Your task to perform on an android device: turn on sleep mode Image 0: 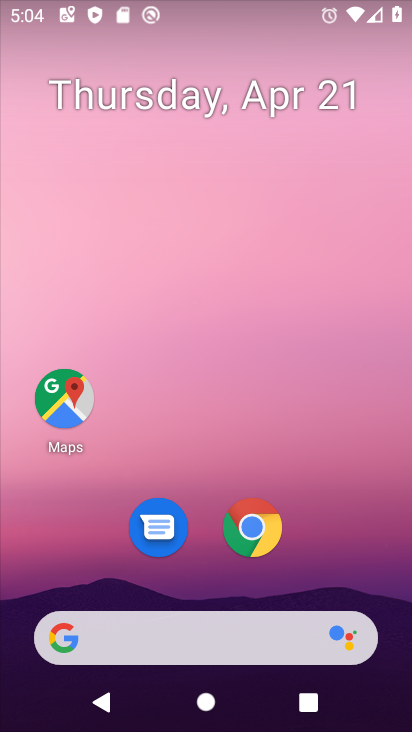
Step 0: click (340, 173)
Your task to perform on an android device: turn on sleep mode Image 1: 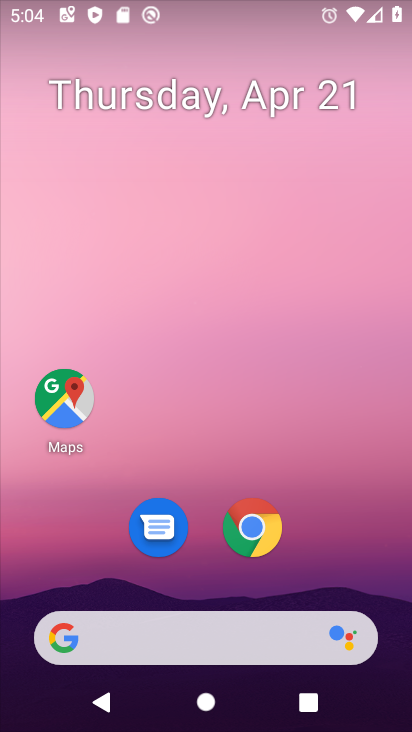
Step 1: drag from (362, 373) to (364, 109)
Your task to perform on an android device: turn on sleep mode Image 2: 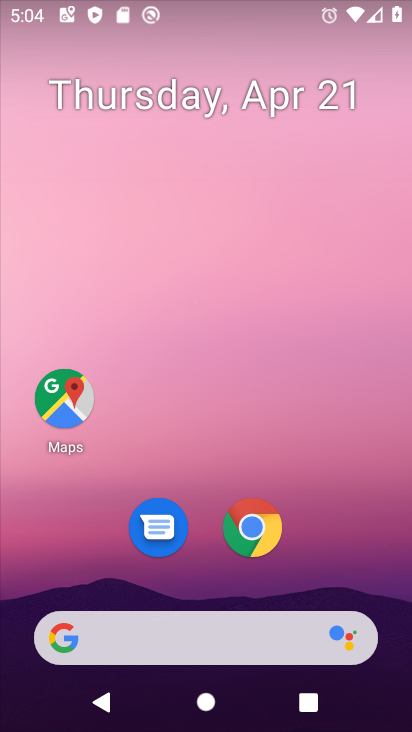
Step 2: drag from (330, 191) to (311, 112)
Your task to perform on an android device: turn on sleep mode Image 3: 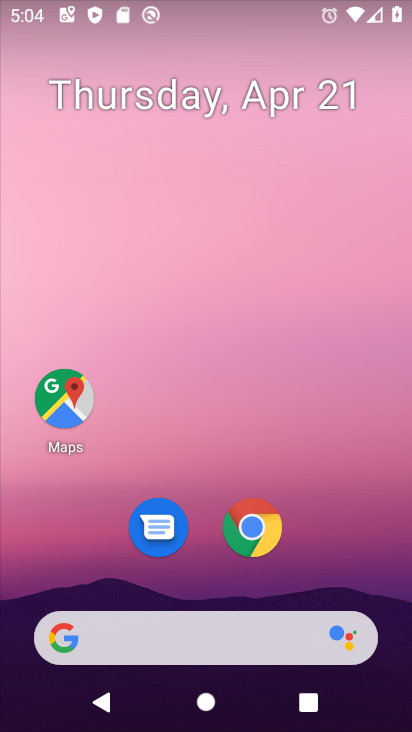
Step 3: drag from (396, 591) to (341, 69)
Your task to perform on an android device: turn on sleep mode Image 4: 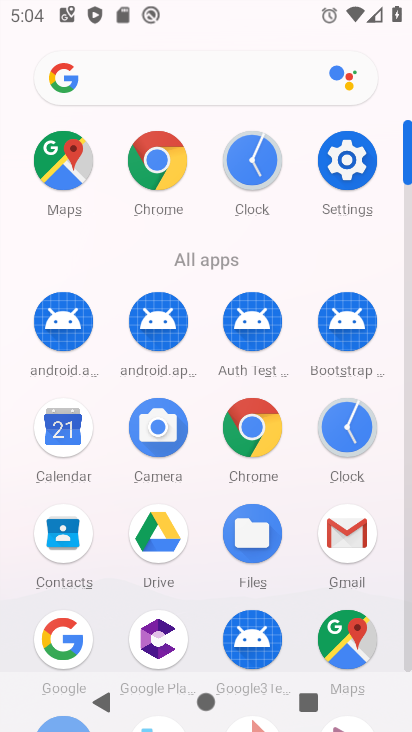
Step 4: click (357, 153)
Your task to perform on an android device: turn on sleep mode Image 5: 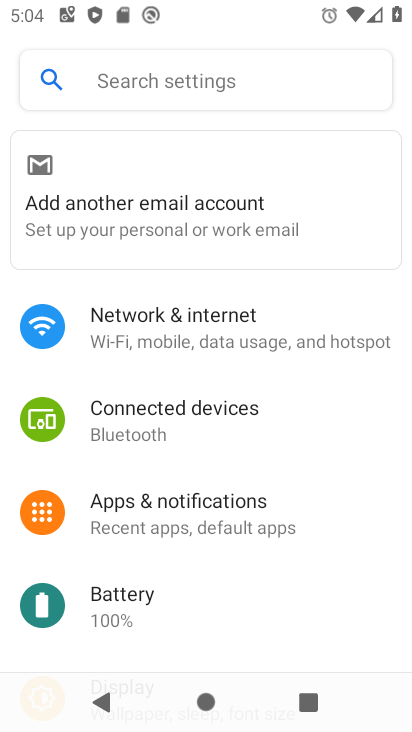
Step 5: drag from (301, 628) to (297, 226)
Your task to perform on an android device: turn on sleep mode Image 6: 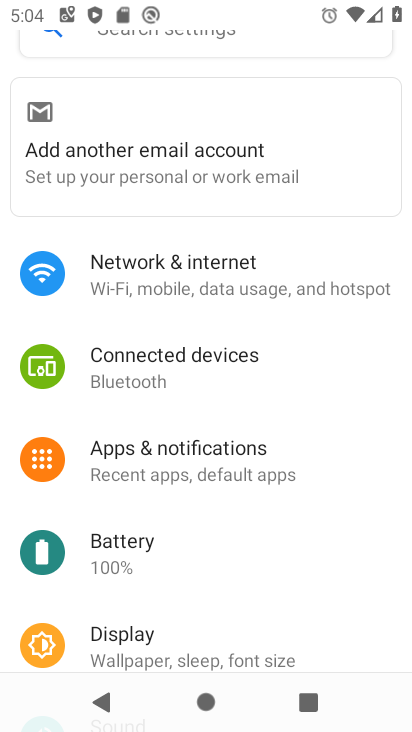
Step 6: click (103, 634)
Your task to perform on an android device: turn on sleep mode Image 7: 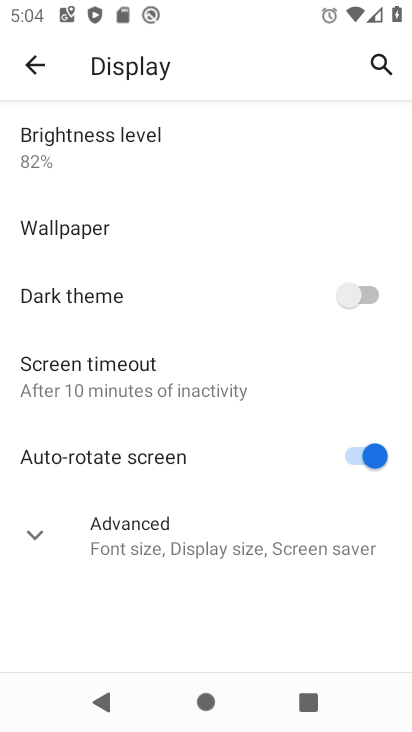
Step 7: click (81, 379)
Your task to perform on an android device: turn on sleep mode Image 8: 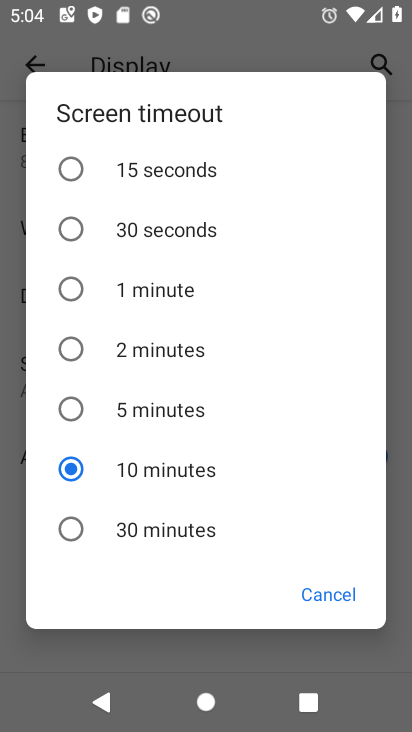
Step 8: task complete